Your task to perform on an android device: Open the stopwatch Image 0: 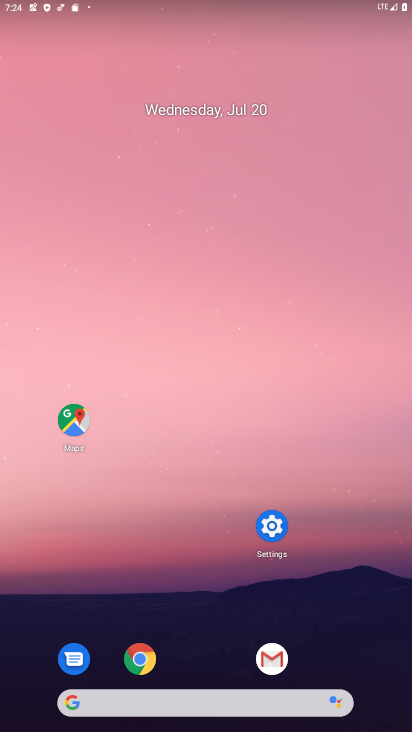
Step 0: drag from (233, 707) to (262, 140)
Your task to perform on an android device: Open the stopwatch Image 1: 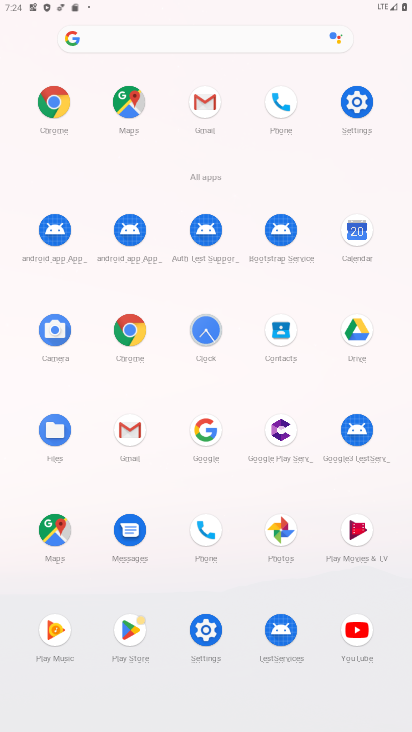
Step 1: click (200, 331)
Your task to perform on an android device: Open the stopwatch Image 2: 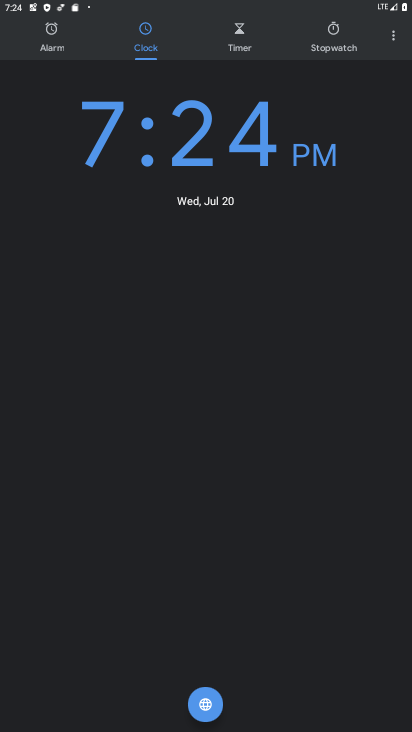
Step 2: click (336, 47)
Your task to perform on an android device: Open the stopwatch Image 3: 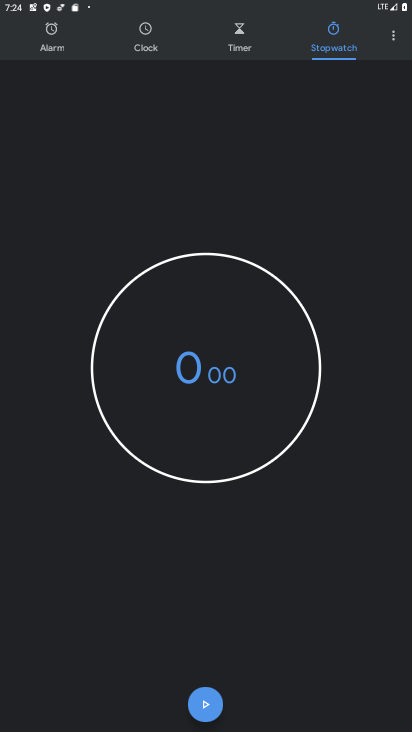
Step 3: task complete